Your task to perform on an android device: Do I have any events this weekend? Image 0: 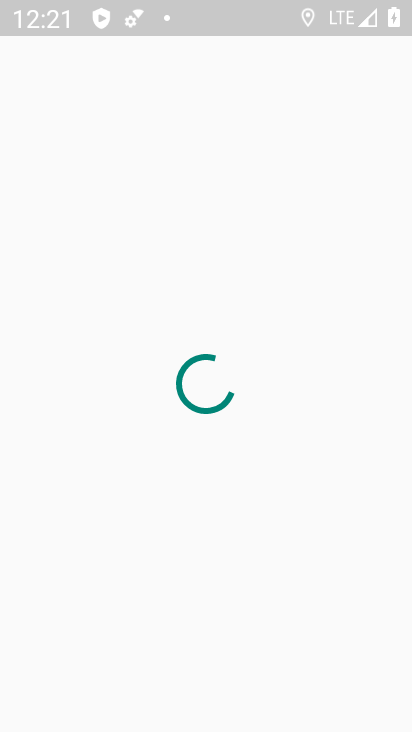
Step 0: press home button
Your task to perform on an android device: Do I have any events this weekend? Image 1: 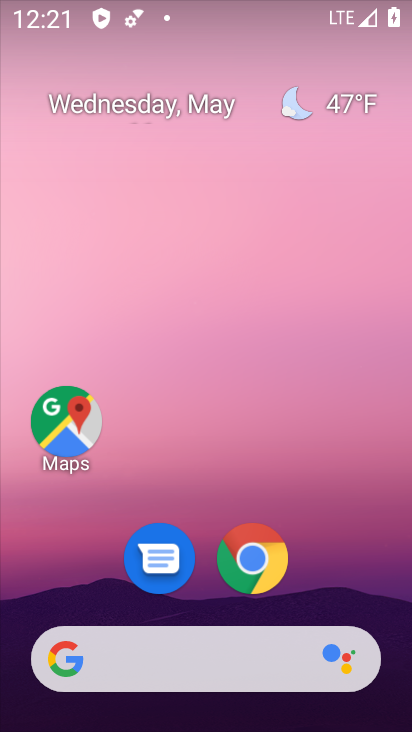
Step 1: drag from (202, 720) to (183, 172)
Your task to perform on an android device: Do I have any events this weekend? Image 2: 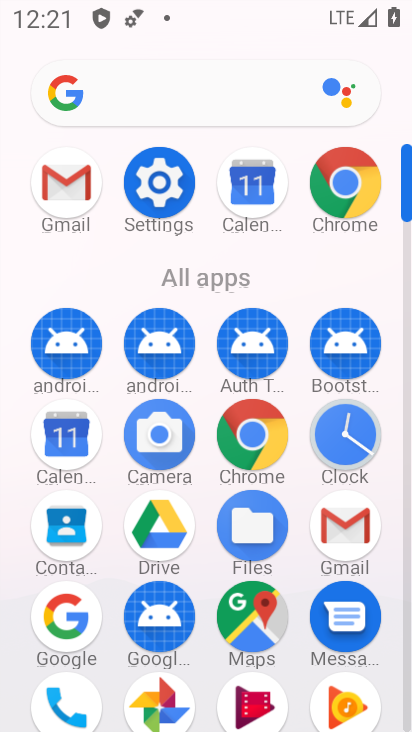
Step 2: click (61, 433)
Your task to perform on an android device: Do I have any events this weekend? Image 3: 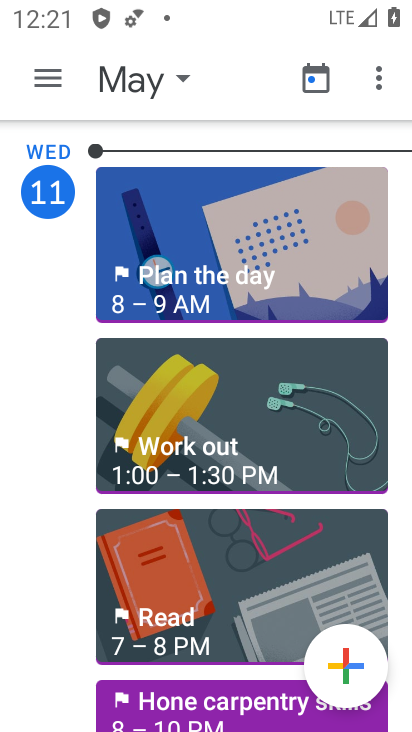
Step 3: click (41, 78)
Your task to perform on an android device: Do I have any events this weekend? Image 4: 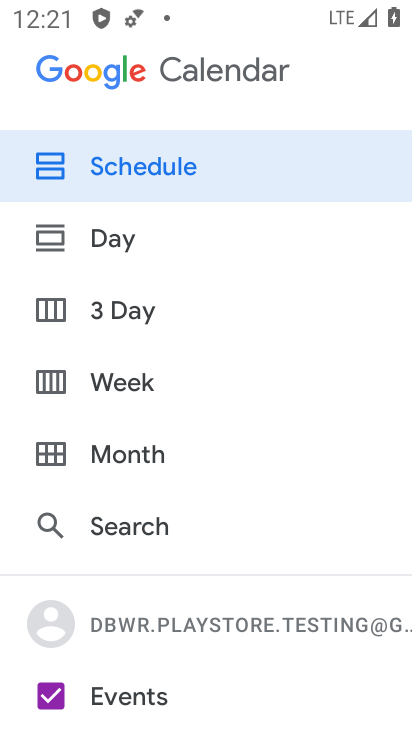
Step 4: click (135, 380)
Your task to perform on an android device: Do I have any events this weekend? Image 5: 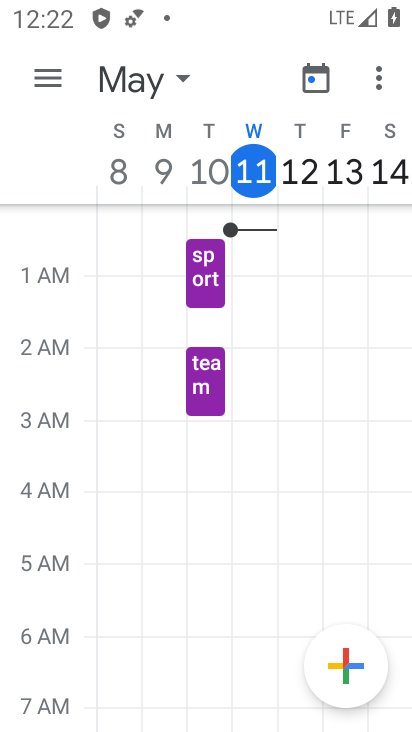
Step 5: task complete